Your task to perform on an android device: Search for "jbl charge 4" on target, select the first entry, add it to the cart, then select checkout. Image 0: 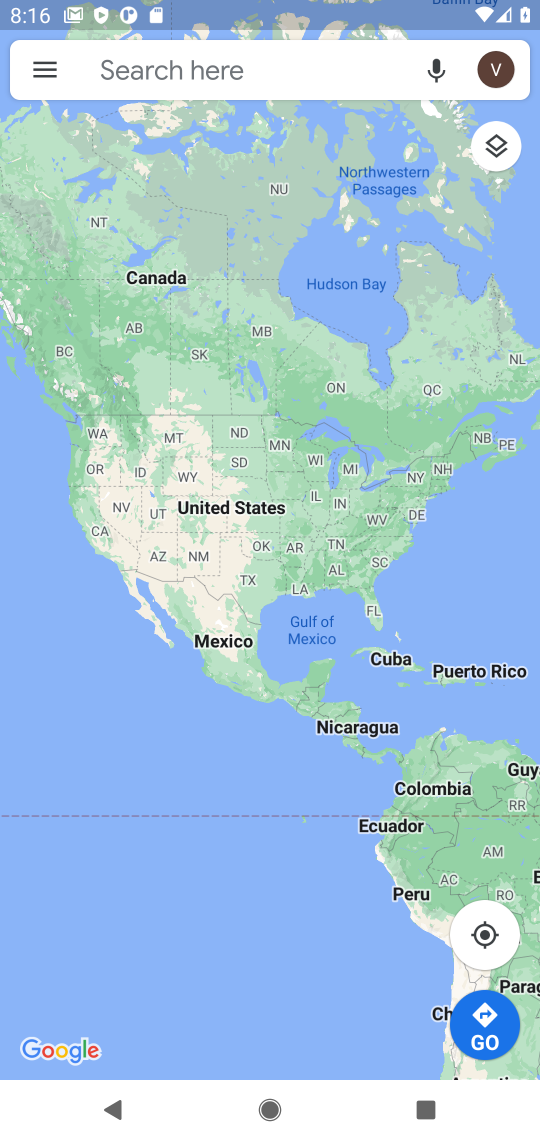
Step 0: press home button
Your task to perform on an android device: Search for "jbl charge 4" on target, select the first entry, add it to the cart, then select checkout. Image 1: 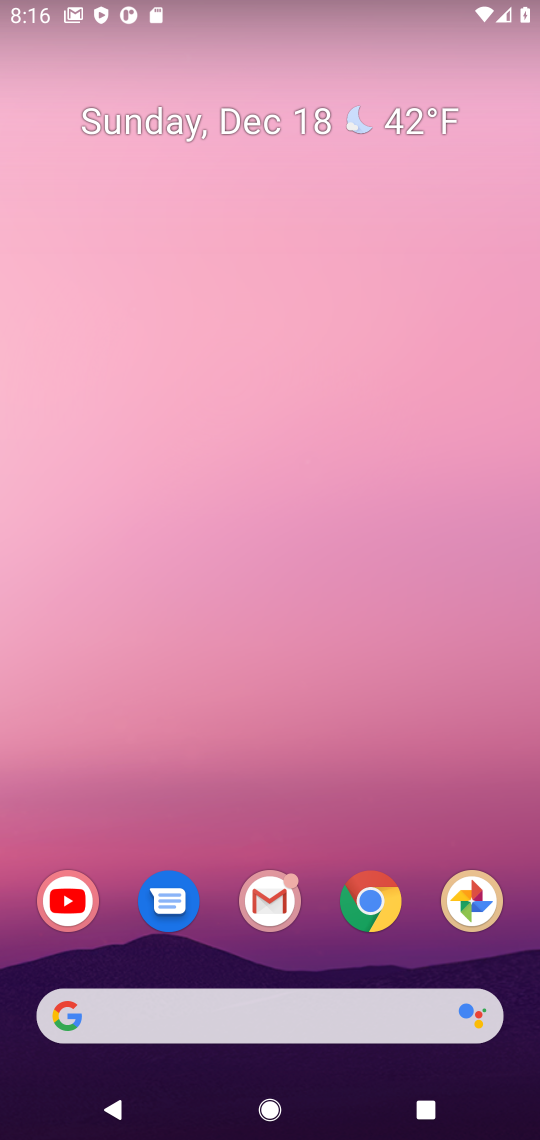
Step 1: click (323, 1014)
Your task to perform on an android device: Search for "jbl charge 4" on target, select the first entry, add it to the cart, then select checkout. Image 2: 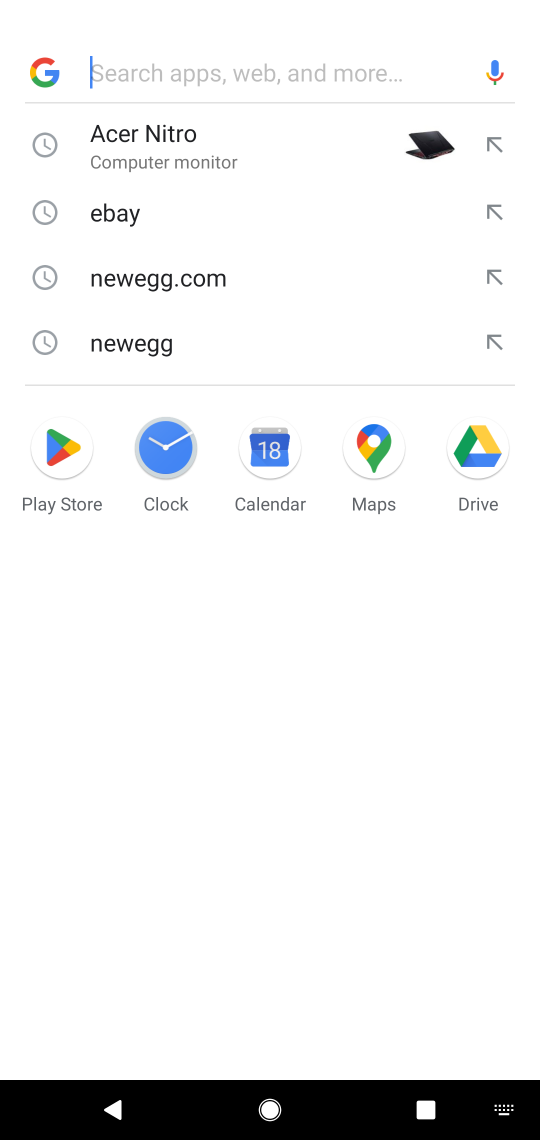
Step 2: type "target"
Your task to perform on an android device: Search for "jbl charge 4" on target, select the first entry, add it to the cart, then select checkout. Image 3: 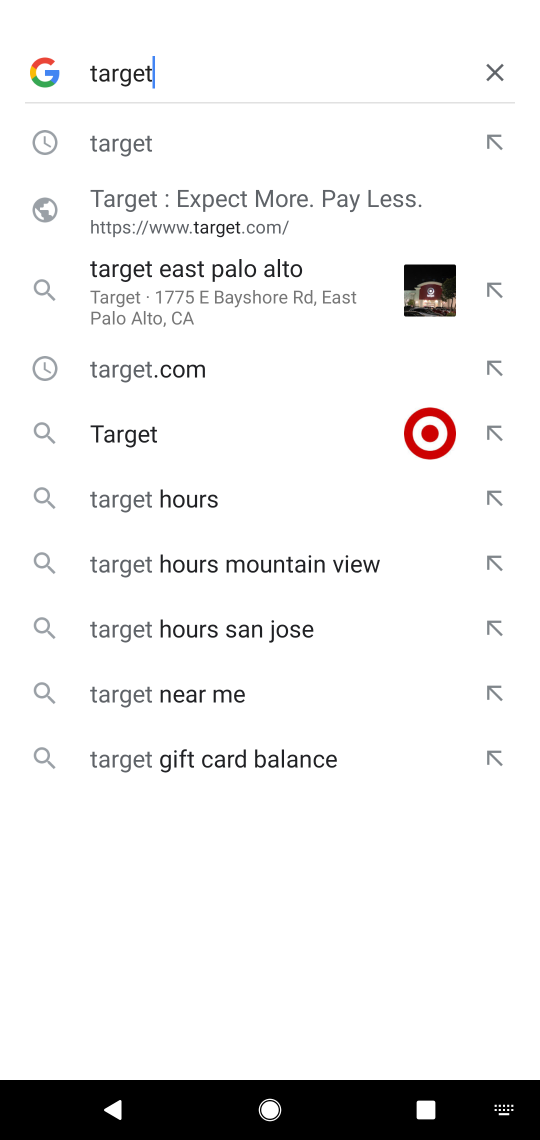
Step 3: click (138, 425)
Your task to perform on an android device: Search for "jbl charge 4" on target, select the first entry, add it to the cart, then select checkout. Image 4: 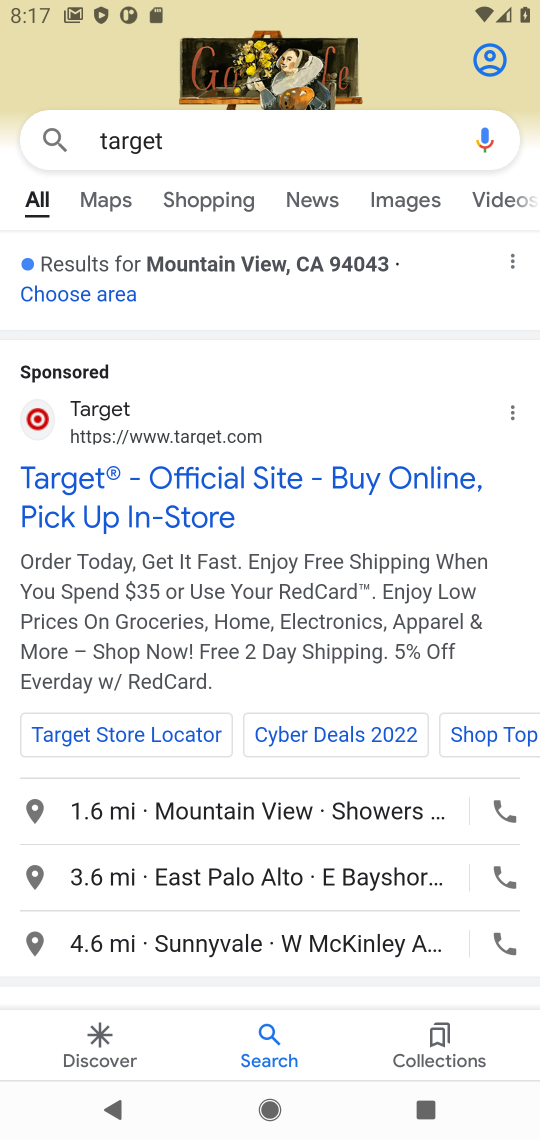
Step 4: click (118, 477)
Your task to perform on an android device: Search for "jbl charge 4" on target, select the first entry, add it to the cart, then select checkout. Image 5: 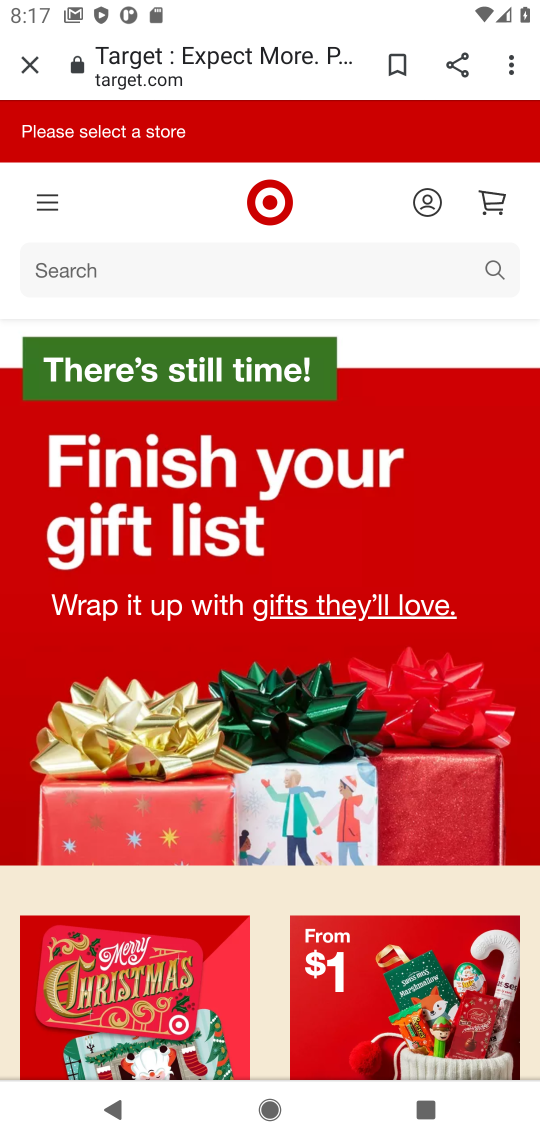
Step 5: click (87, 275)
Your task to perform on an android device: Search for "jbl charge 4" on target, select the first entry, add it to the cart, then select checkout. Image 6: 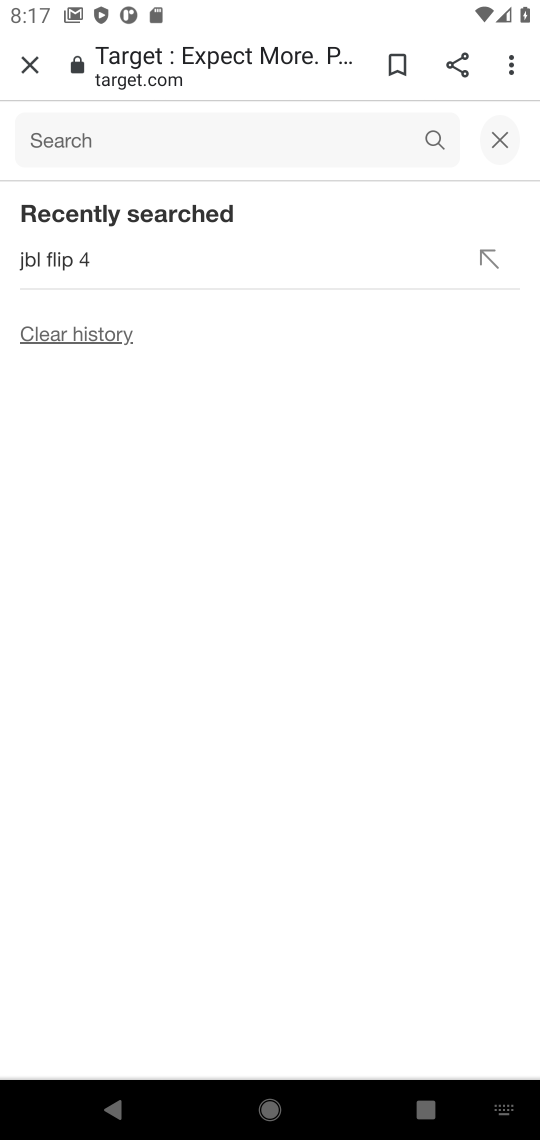
Step 6: type "jbl charge 4"
Your task to perform on an android device: Search for "jbl charge 4" on target, select the first entry, add it to the cart, then select checkout. Image 7: 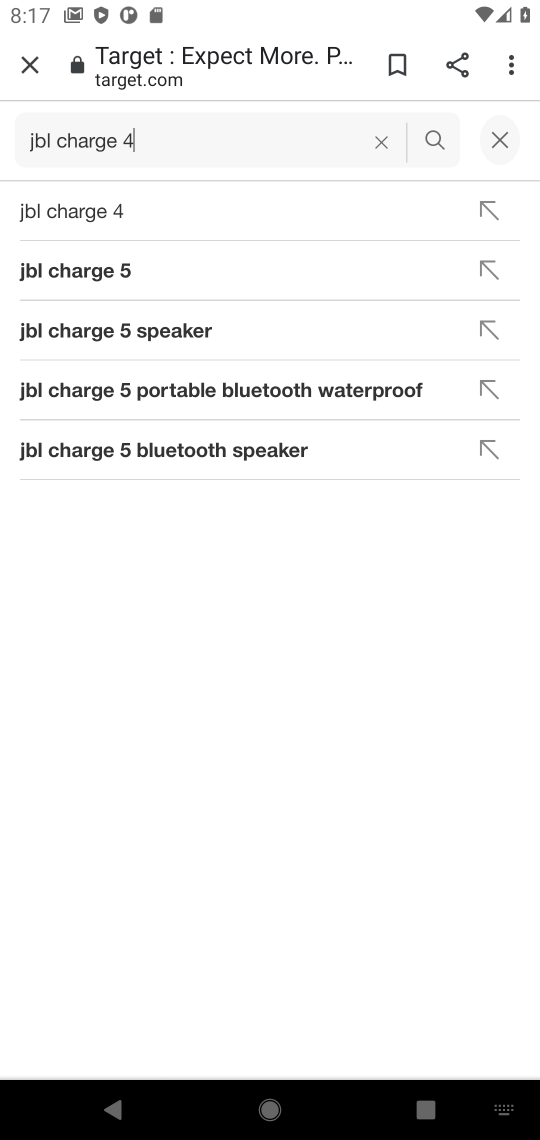
Step 7: click (79, 224)
Your task to perform on an android device: Search for "jbl charge 4" on target, select the first entry, add it to the cart, then select checkout. Image 8: 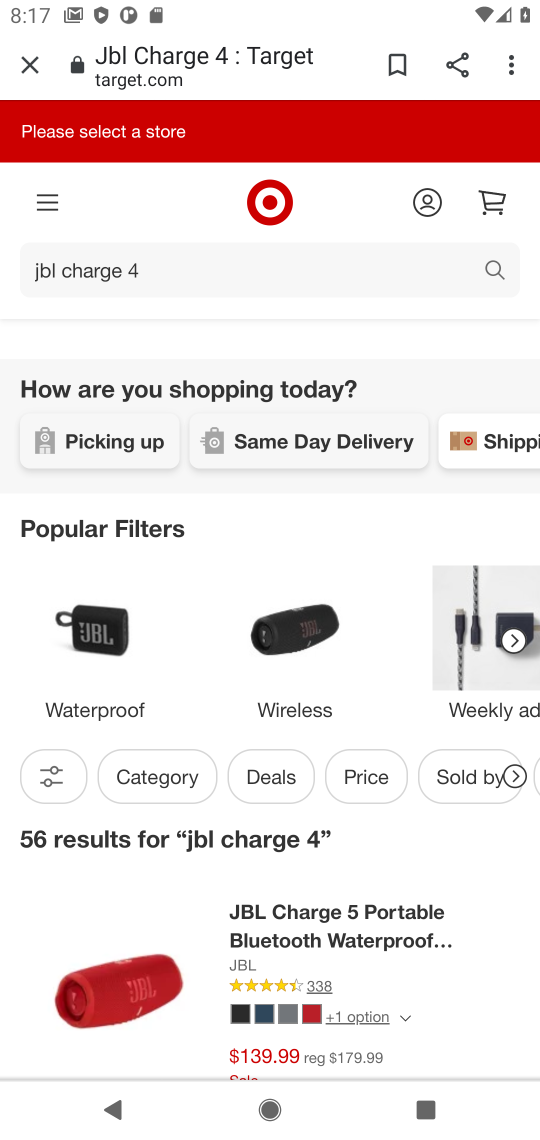
Step 8: drag from (474, 1022) to (322, 382)
Your task to perform on an android device: Search for "jbl charge 4" on target, select the first entry, add it to the cart, then select checkout. Image 9: 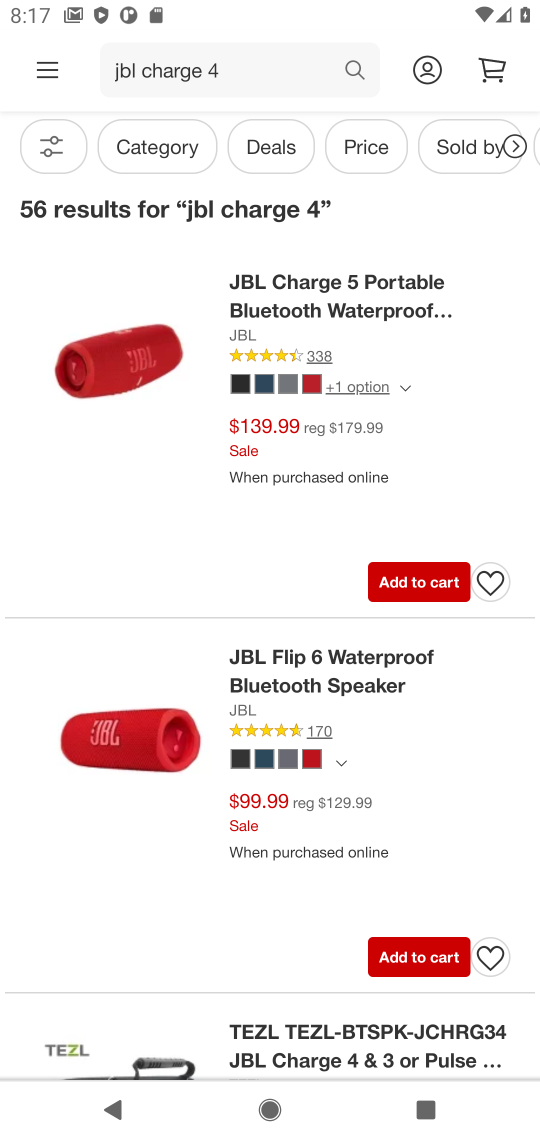
Step 9: click (404, 591)
Your task to perform on an android device: Search for "jbl charge 4" on target, select the first entry, add it to the cart, then select checkout. Image 10: 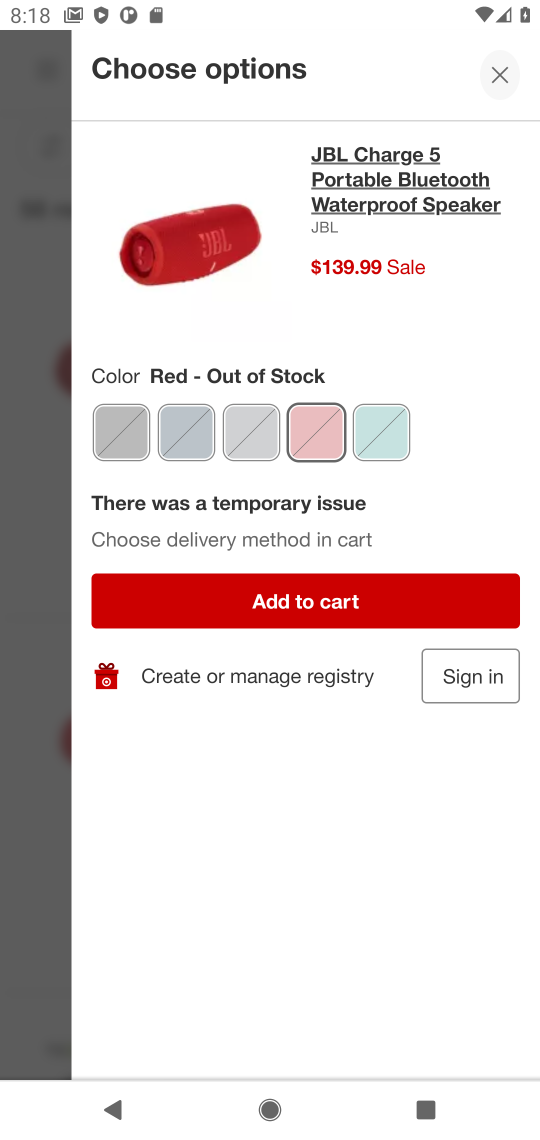
Step 10: click (182, 596)
Your task to perform on an android device: Search for "jbl charge 4" on target, select the first entry, add it to the cart, then select checkout. Image 11: 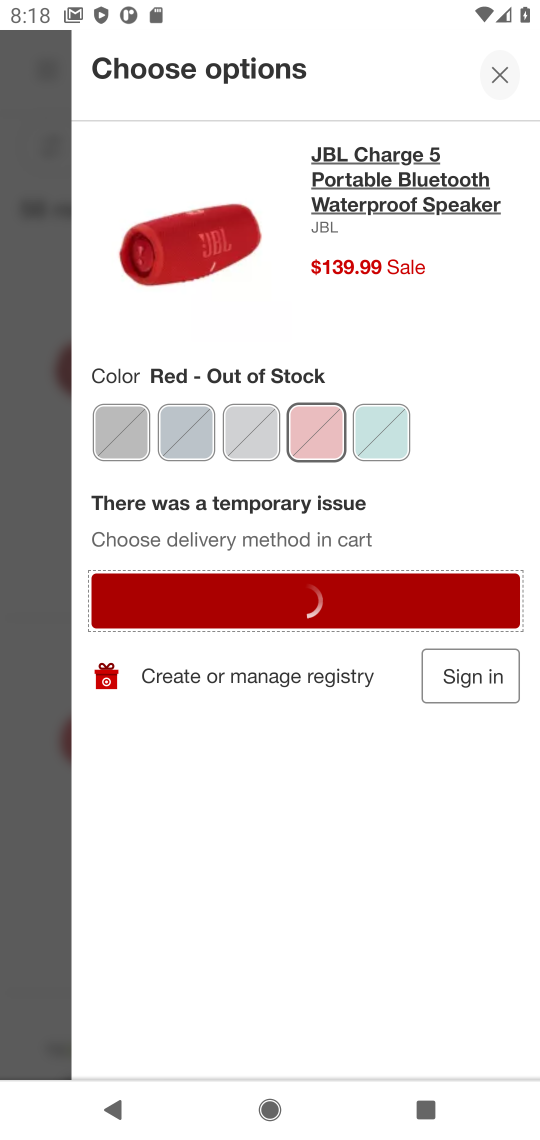
Step 11: task complete